Your task to perform on an android device: Go to notification settings Image 0: 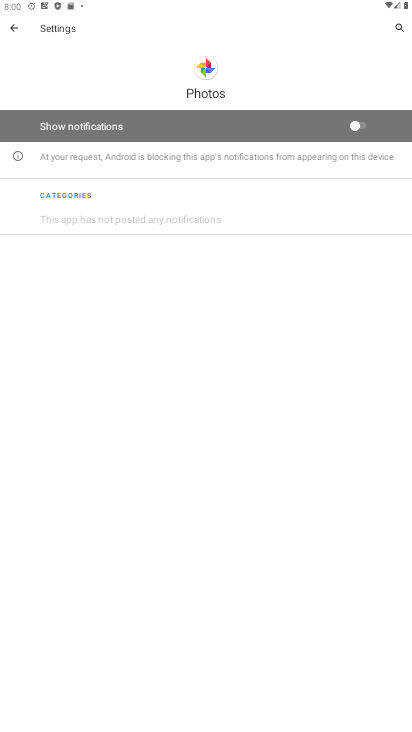
Step 0: press home button
Your task to perform on an android device: Go to notification settings Image 1: 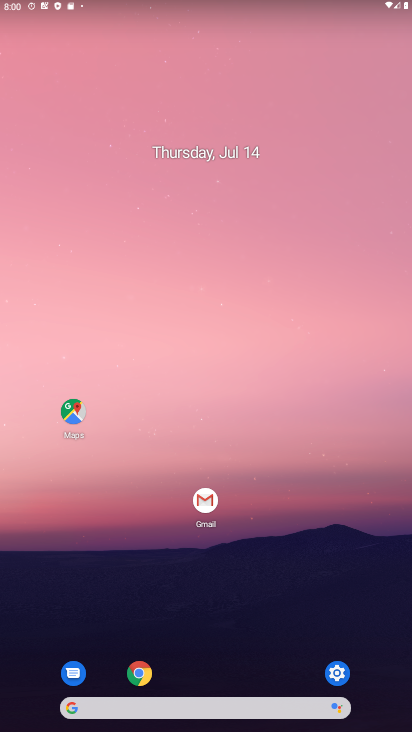
Step 1: click (340, 677)
Your task to perform on an android device: Go to notification settings Image 2: 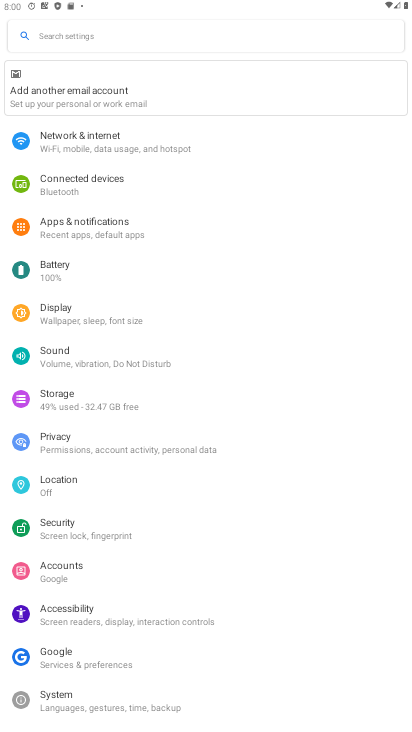
Step 2: click (107, 41)
Your task to perform on an android device: Go to notification settings Image 3: 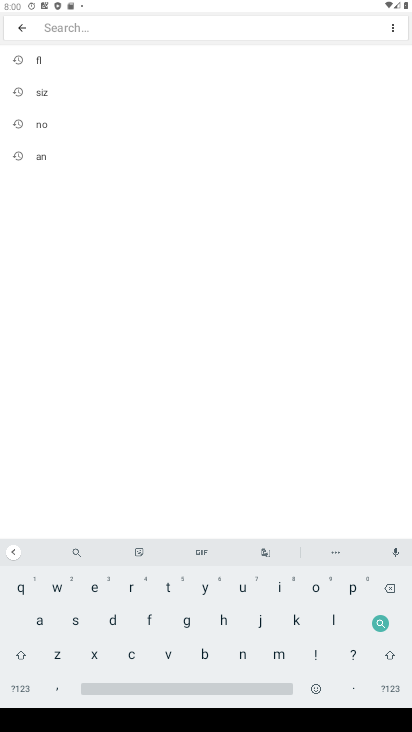
Step 3: click (238, 655)
Your task to perform on an android device: Go to notification settings Image 4: 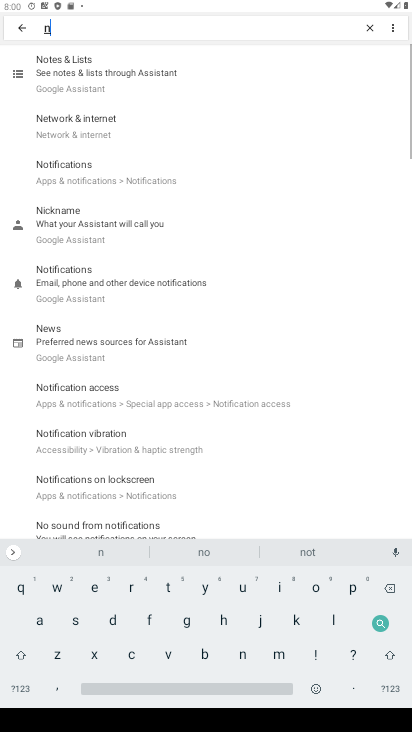
Step 4: click (316, 592)
Your task to perform on an android device: Go to notification settings Image 5: 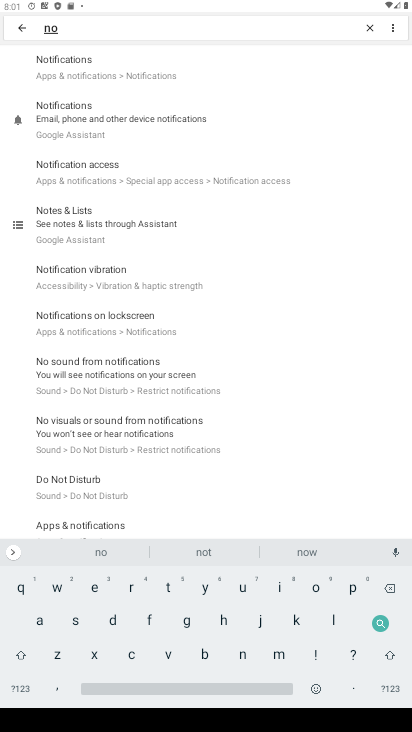
Step 5: click (141, 77)
Your task to perform on an android device: Go to notification settings Image 6: 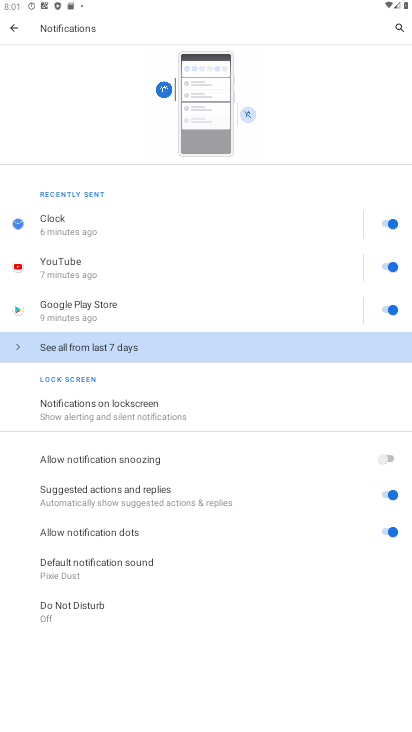
Step 6: click (143, 419)
Your task to perform on an android device: Go to notification settings Image 7: 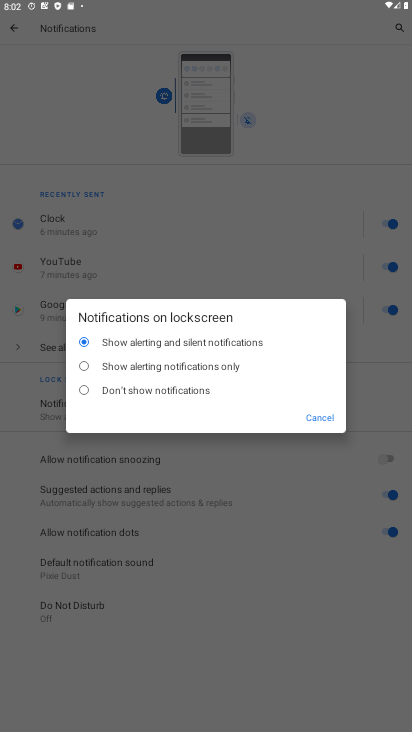
Step 7: task complete